Your task to perform on an android device: set an alarm Image 0: 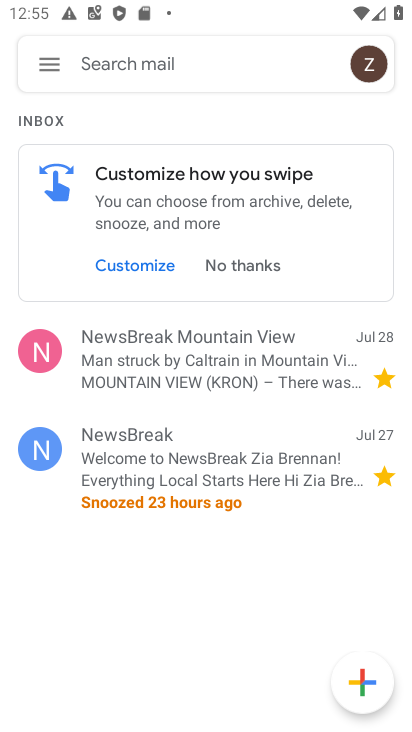
Step 0: press home button
Your task to perform on an android device: set an alarm Image 1: 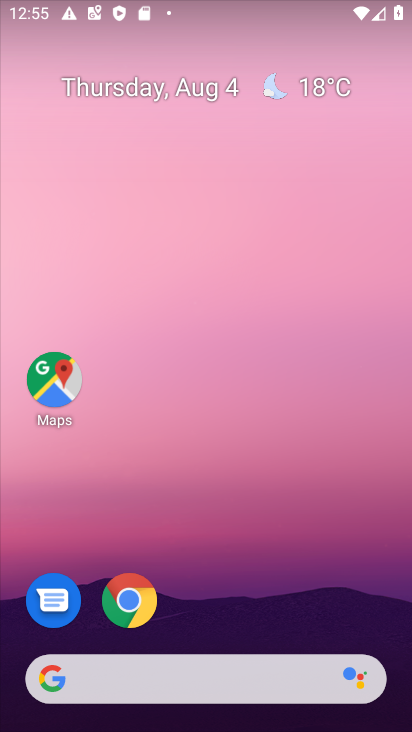
Step 1: drag from (192, 680) to (266, 88)
Your task to perform on an android device: set an alarm Image 2: 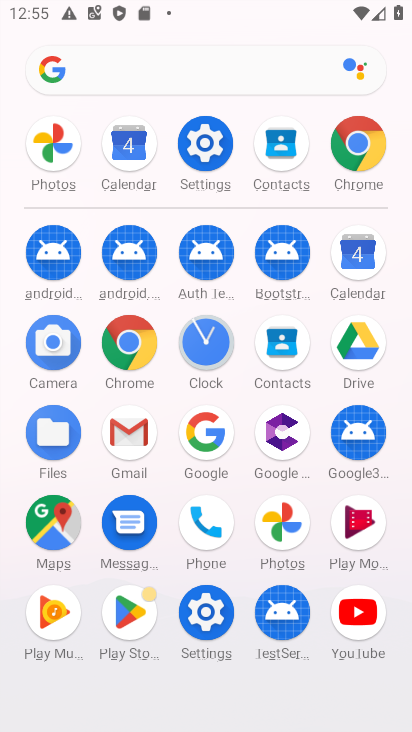
Step 2: click (208, 336)
Your task to perform on an android device: set an alarm Image 3: 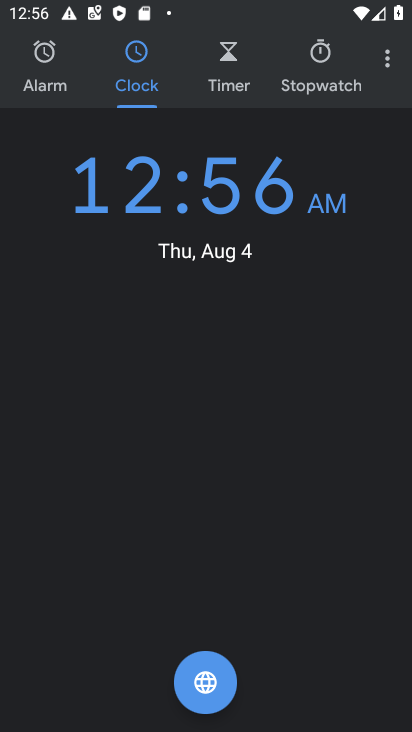
Step 3: click (38, 84)
Your task to perform on an android device: set an alarm Image 4: 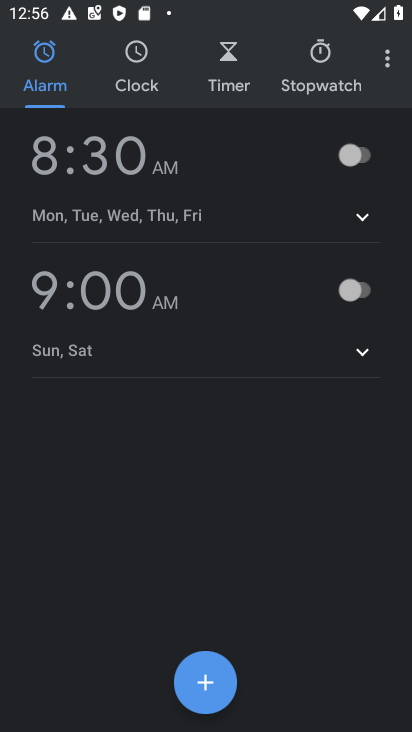
Step 4: click (367, 157)
Your task to perform on an android device: set an alarm Image 5: 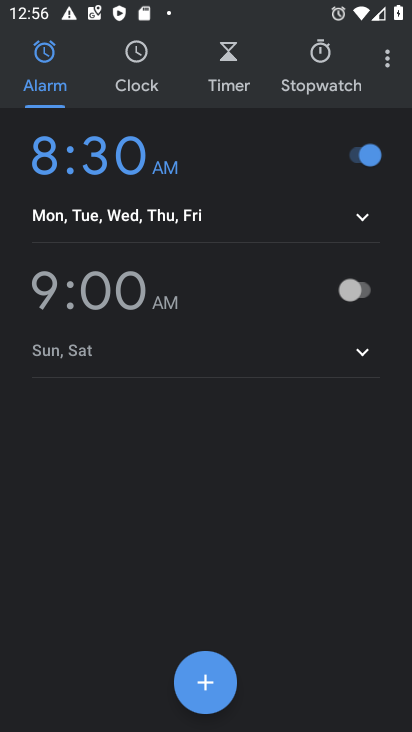
Step 5: task complete